Your task to perform on an android device: open a bookmark in the chrome app Image 0: 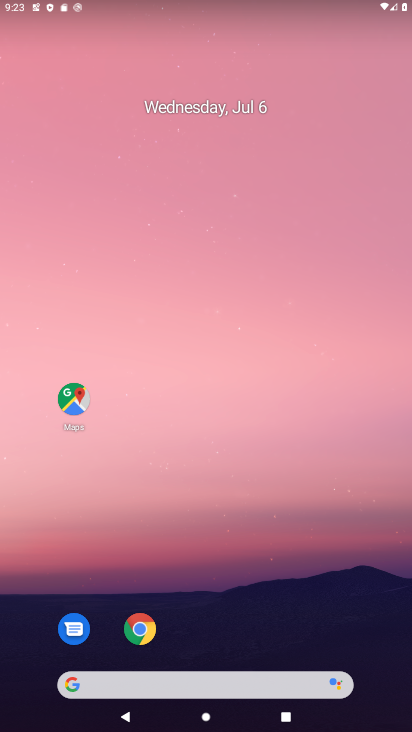
Step 0: drag from (224, 626) to (267, 125)
Your task to perform on an android device: open a bookmark in the chrome app Image 1: 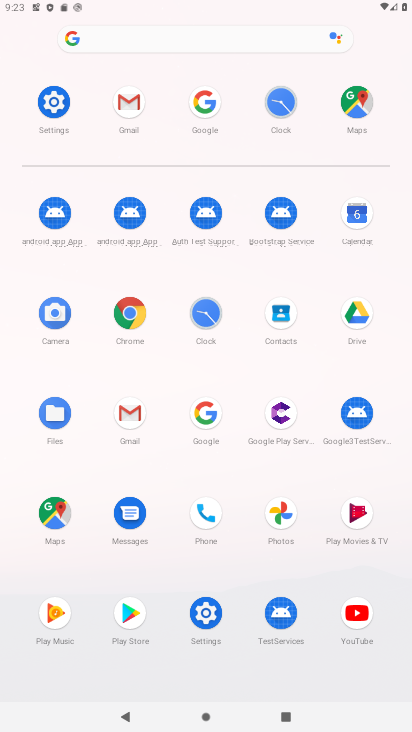
Step 1: click (129, 316)
Your task to perform on an android device: open a bookmark in the chrome app Image 2: 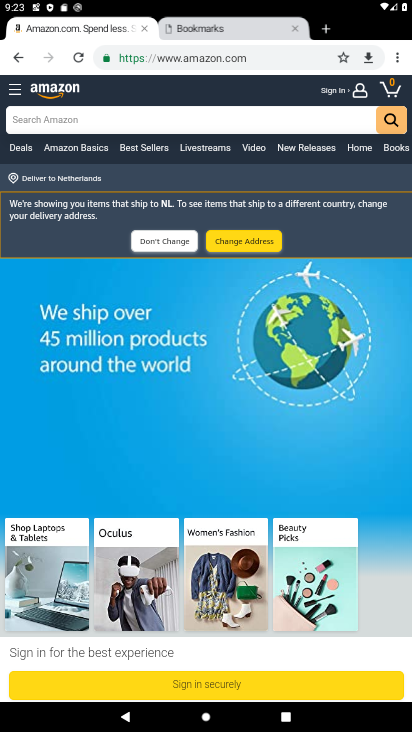
Step 2: click (392, 56)
Your task to perform on an android device: open a bookmark in the chrome app Image 3: 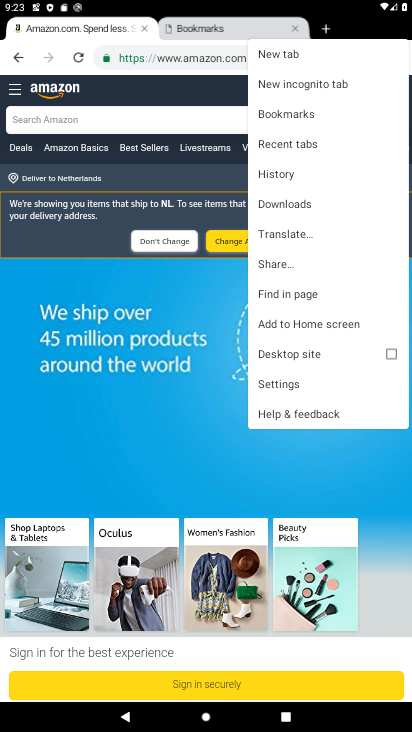
Step 3: click (293, 114)
Your task to perform on an android device: open a bookmark in the chrome app Image 4: 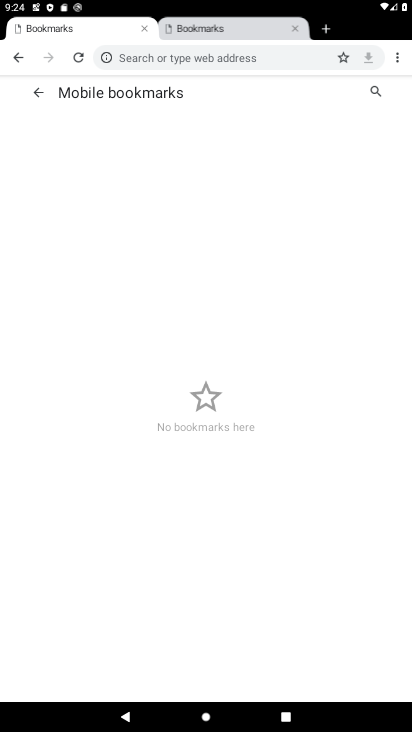
Step 4: task complete